Your task to perform on an android device: Search for "dell alienware" on costco.com, select the first entry, add it to the cart, then select checkout. Image 0: 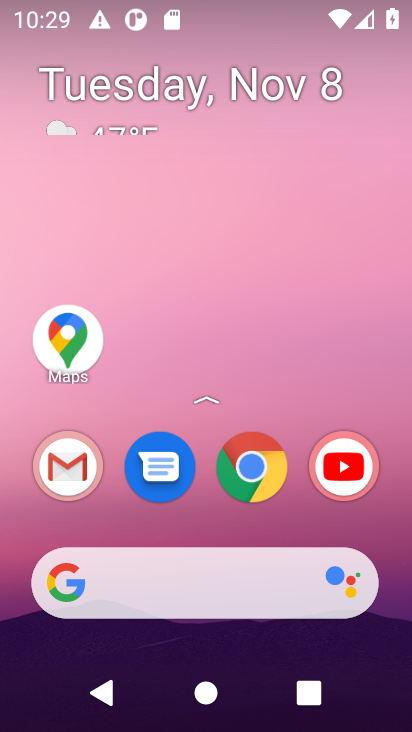
Step 0: click (215, 579)
Your task to perform on an android device: Search for "dell alienware" on costco.com, select the first entry, add it to the cart, then select checkout. Image 1: 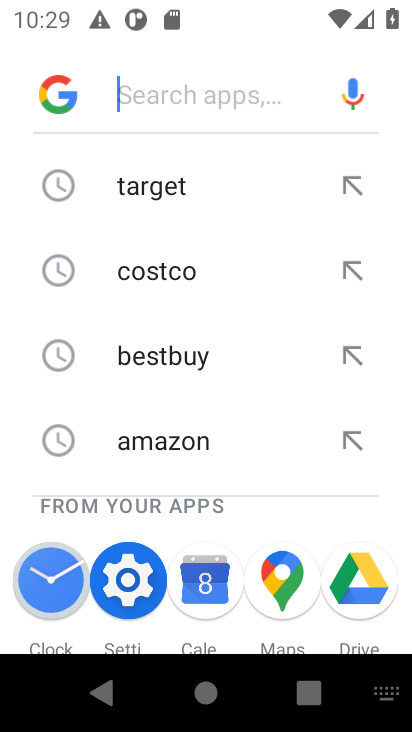
Step 1: click (142, 295)
Your task to perform on an android device: Search for "dell alienware" on costco.com, select the first entry, add it to the cart, then select checkout. Image 2: 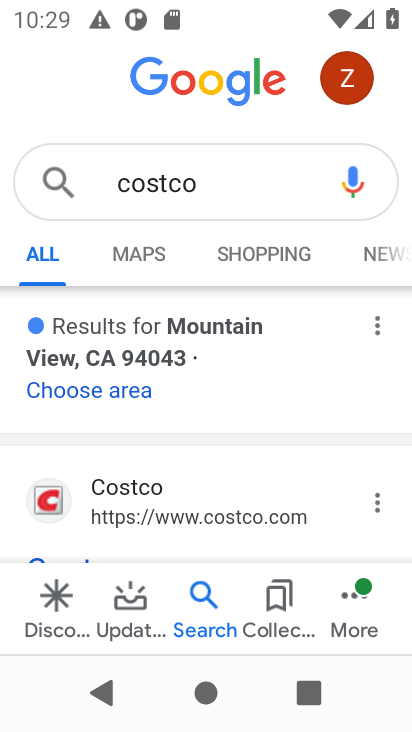
Step 2: click (117, 474)
Your task to perform on an android device: Search for "dell alienware" on costco.com, select the first entry, add it to the cart, then select checkout. Image 3: 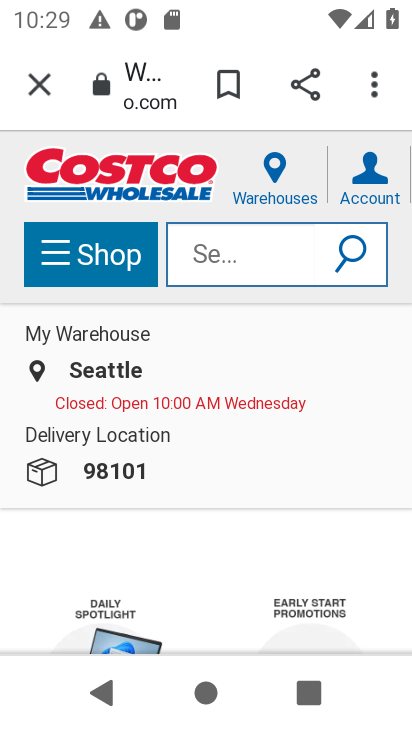
Step 3: task complete